Your task to perform on an android device: Open location settings Image 0: 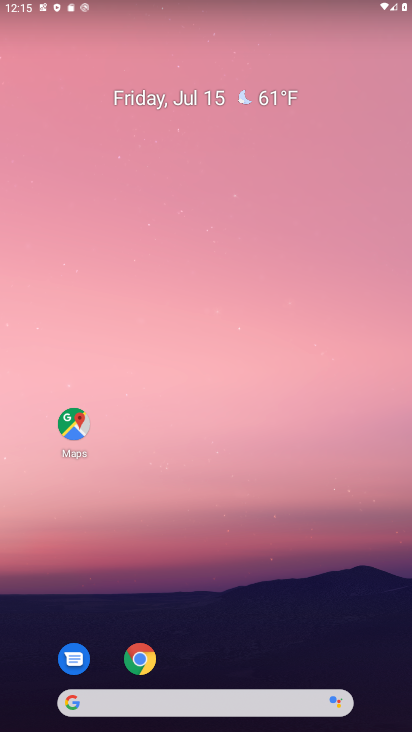
Step 0: drag from (210, 701) to (240, 137)
Your task to perform on an android device: Open location settings Image 1: 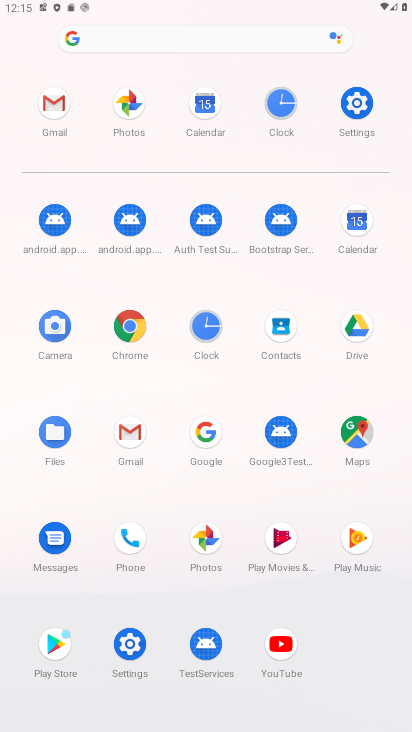
Step 1: click (357, 103)
Your task to perform on an android device: Open location settings Image 2: 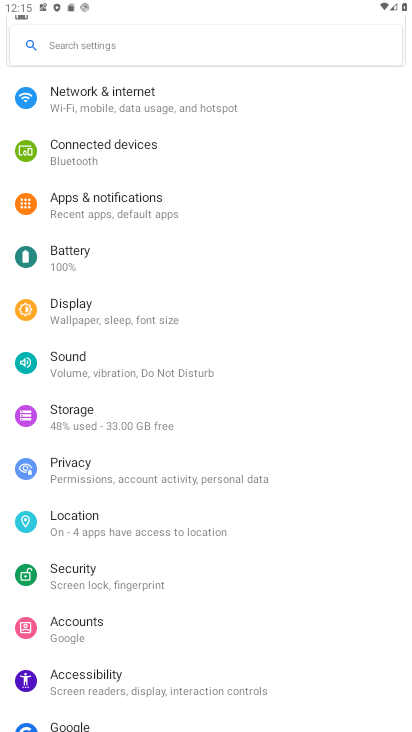
Step 2: click (113, 527)
Your task to perform on an android device: Open location settings Image 3: 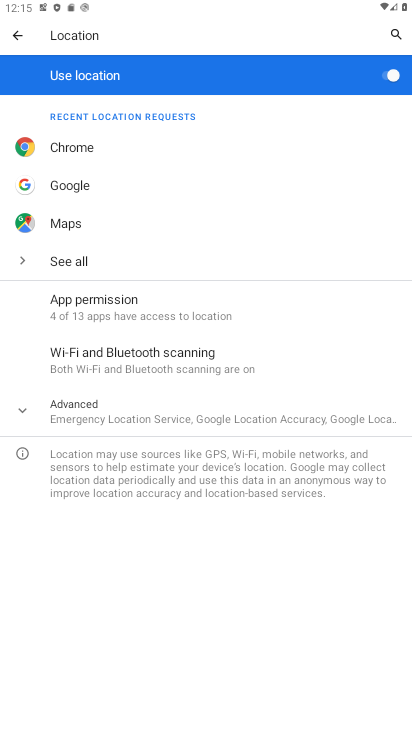
Step 3: task complete